Your task to perform on an android device: Go to display settings Image 0: 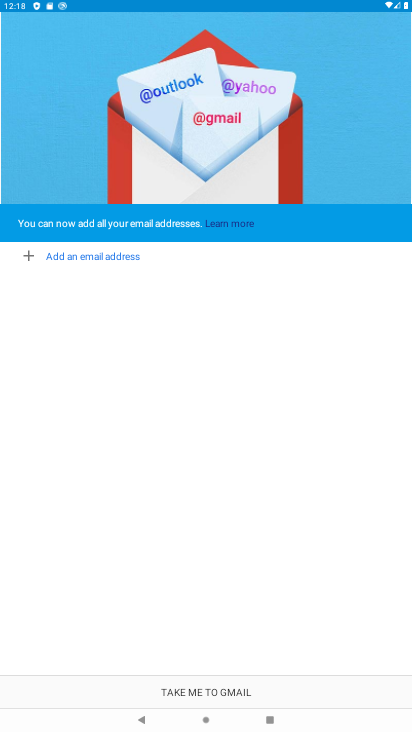
Step 0: press home button
Your task to perform on an android device: Go to display settings Image 1: 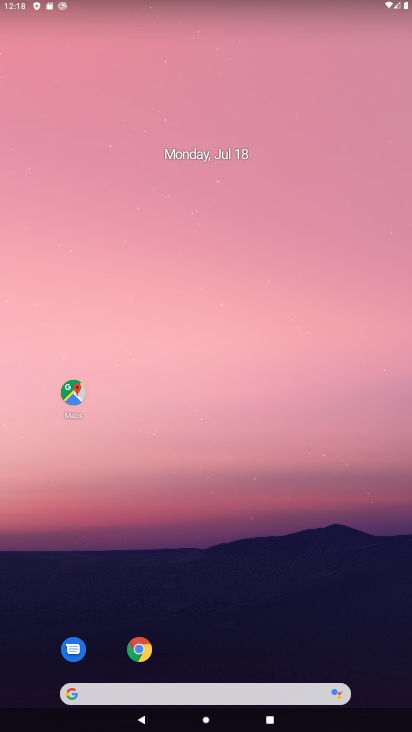
Step 1: drag from (44, 695) to (249, 37)
Your task to perform on an android device: Go to display settings Image 2: 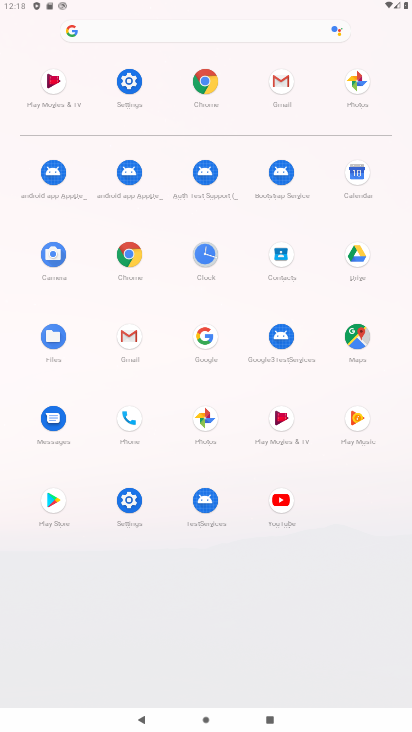
Step 2: click (142, 503)
Your task to perform on an android device: Go to display settings Image 3: 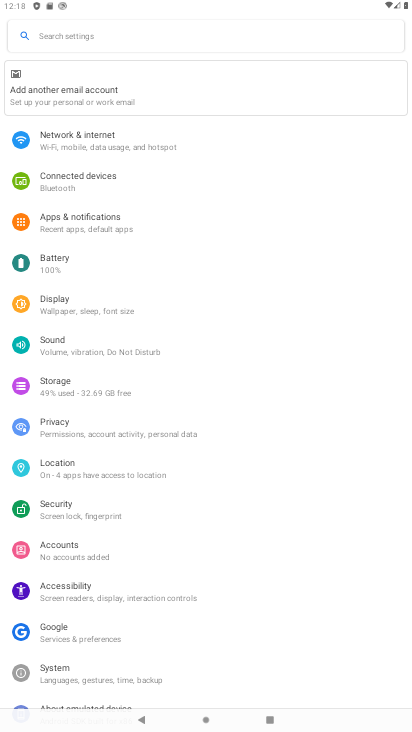
Step 3: click (59, 307)
Your task to perform on an android device: Go to display settings Image 4: 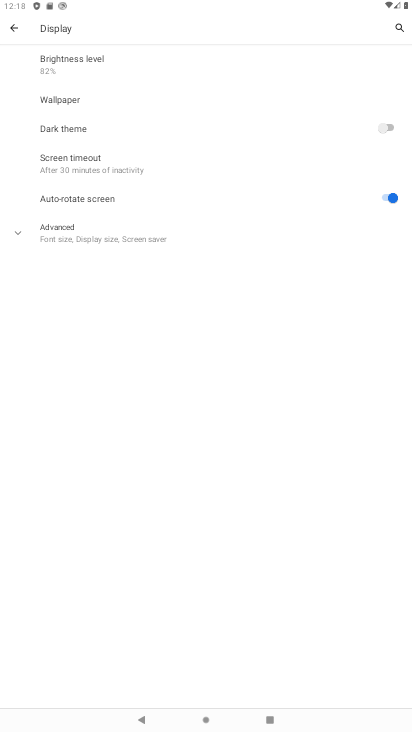
Step 4: task complete